Your task to perform on an android device: turn on wifi Image 0: 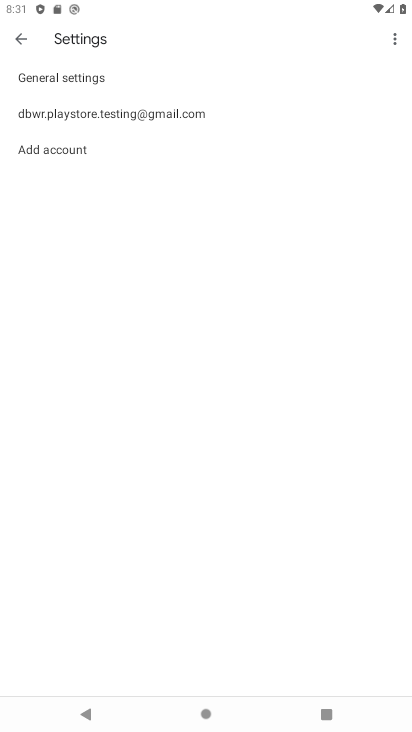
Step 0: press home button
Your task to perform on an android device: turn on wifi Image 1: 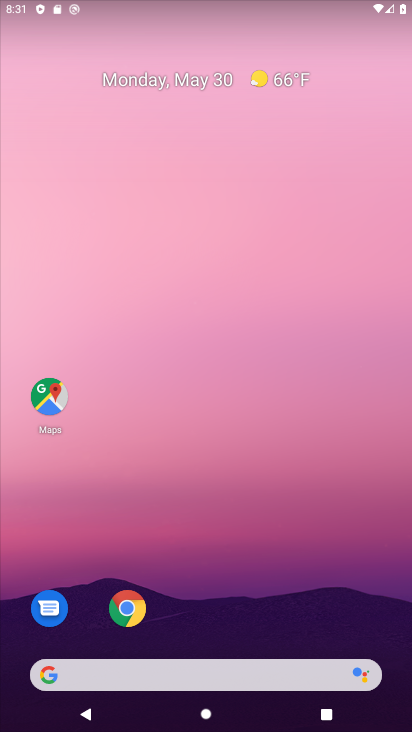
Step 1: drag from (244, 722) to (245, 574)
Your task to perform on an android device: turn on wifi Image 2: 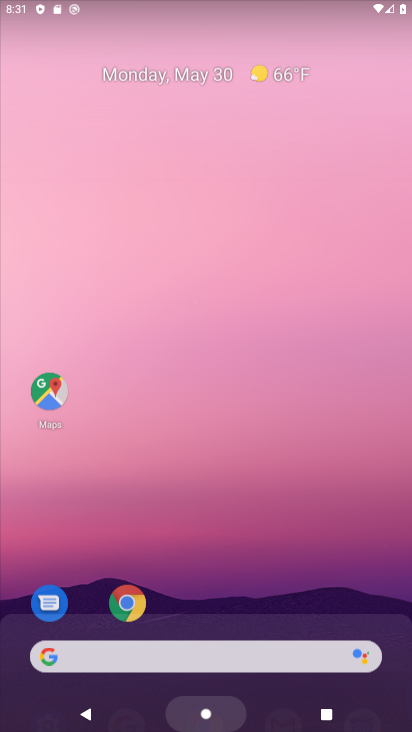
Step 2: click (232, 100)
Your task to perform on an android device: turn on wifi Image 3: 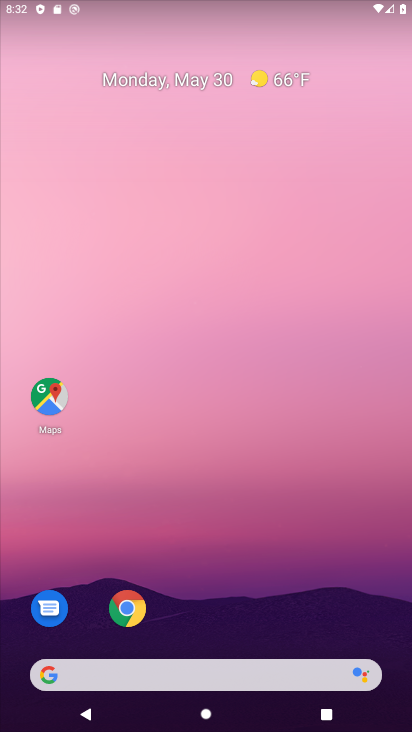
Step 3: drag from (228, 728) to (233, 615)
Your task to perform on an android device: turn on wifi Image 4: 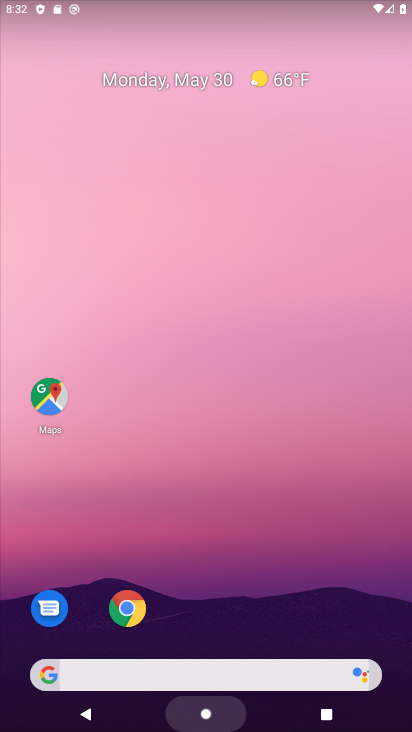
Step 4: drag from (234, 430) to (234, 163)
Your task to perform on an android device: turn on wifi Image 5: 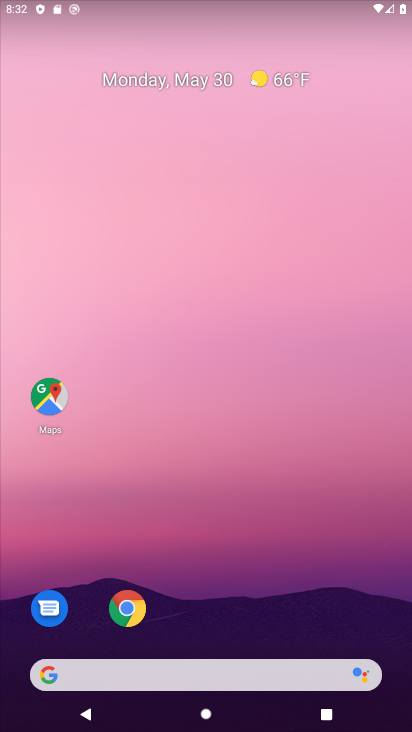
Step 5: drag from (228, 730) to (229, 102)
Your task to perform on an android device: turn on wifi Image 6: 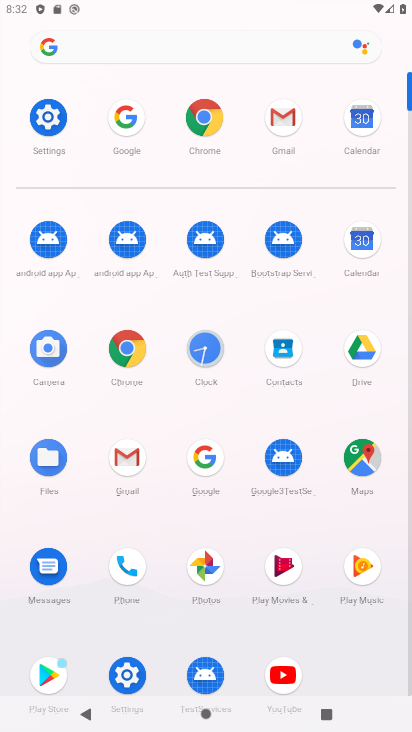
Step 6: click (50, 122)
Your task to perform on an android device: turn on wifi Image 7: 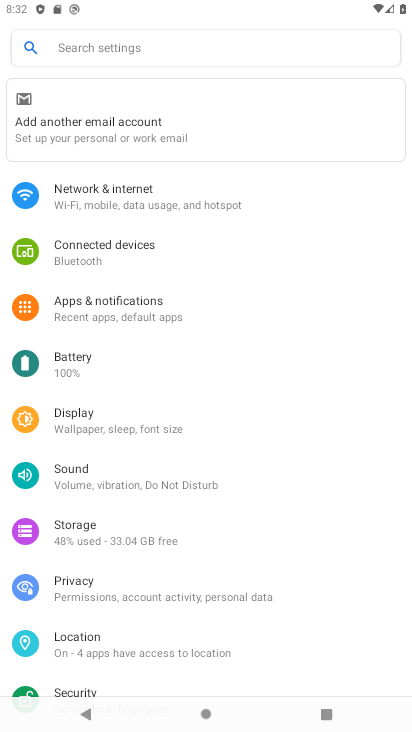
Step 7: click (98, 194)
Your task to perform on an android device: turn on wifi Image 8: 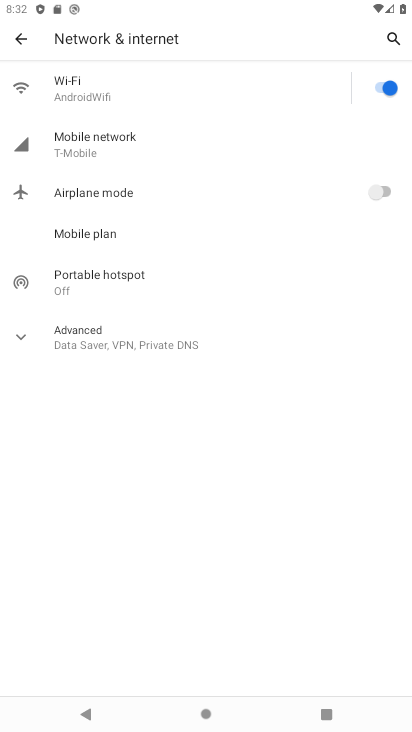
Step 8: task complete